Your task to perform on an android device: visit the assistant section in the google photos Image 0: 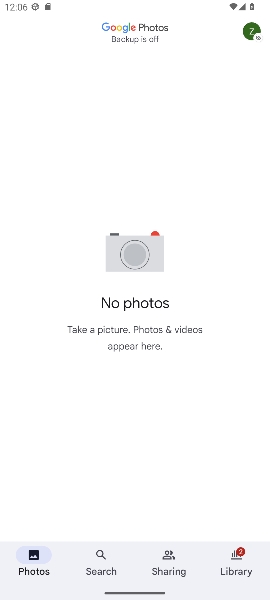
Step 0: press home button
Your task to perform on an android device: visit the assistant section in the google photos Image 1: 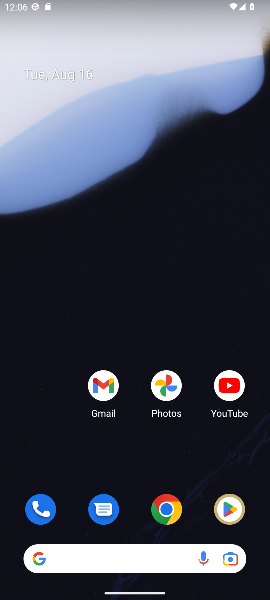
Step 1: click (172, 382)
Your task to perform on an android device: visit the assistant section in the google photos Image 2: 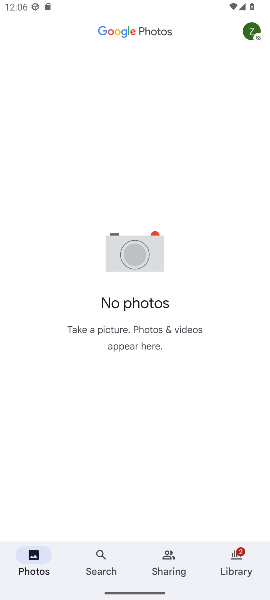
Step 2: task complete